Your task to perform on an android device: Go to Amazon Image 0: 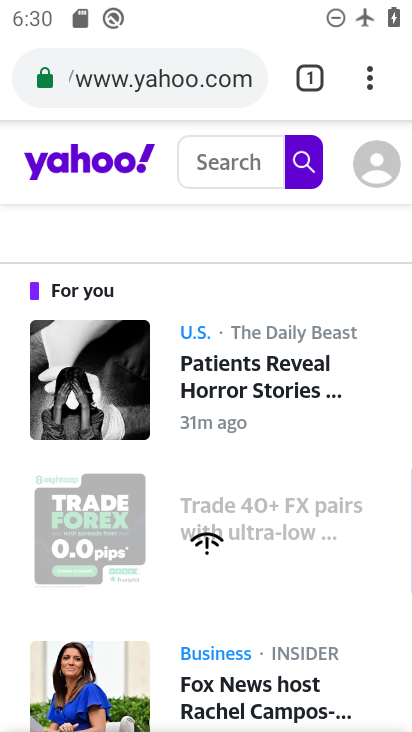
Step 0: click (377, 84)
Your task to perform on an android device: Go to Amazon Image 1: 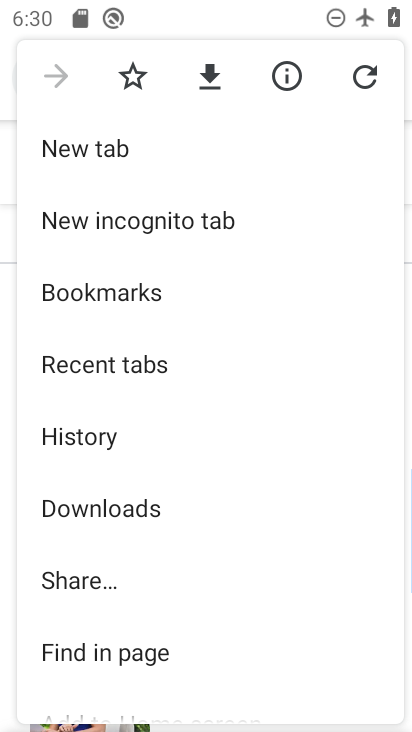
Step 1: click (100, 145)
Your task to perform on an android device: Go to Amazon Image 2: 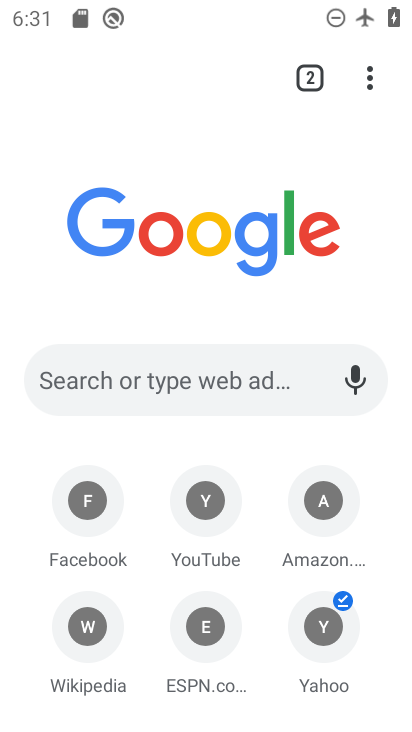
Step 2: click (313, 505)
Your task to perform on an android device: Go to Amazon Image 3: 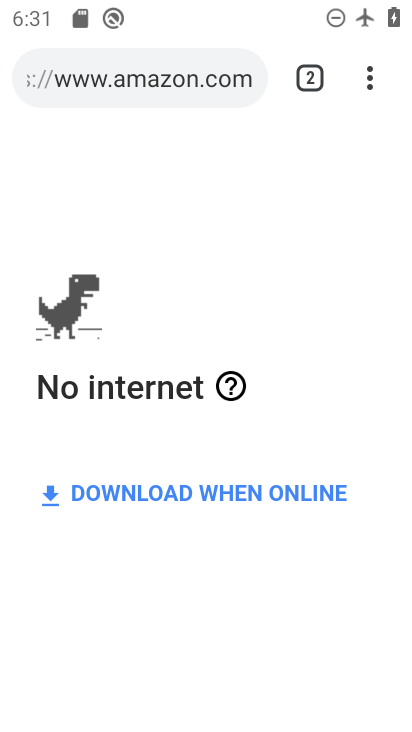
Step 3: task complete